Your task to perform on an android device: open a bookmark in the chrome app Image 0: 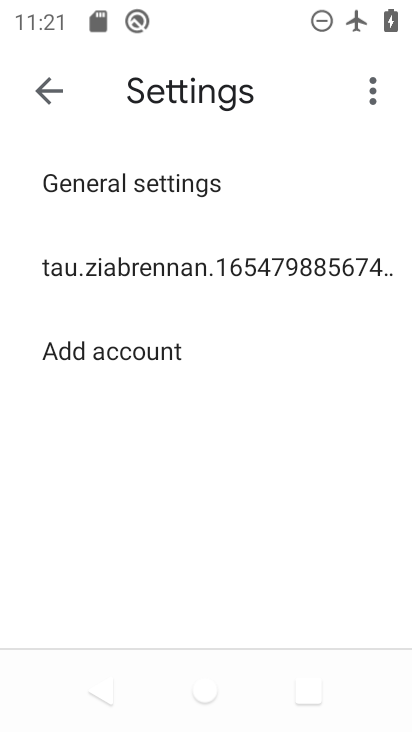
Step 0: press home button
Your task to perform on an android device: open a bookmark in the chrome app Image 1: 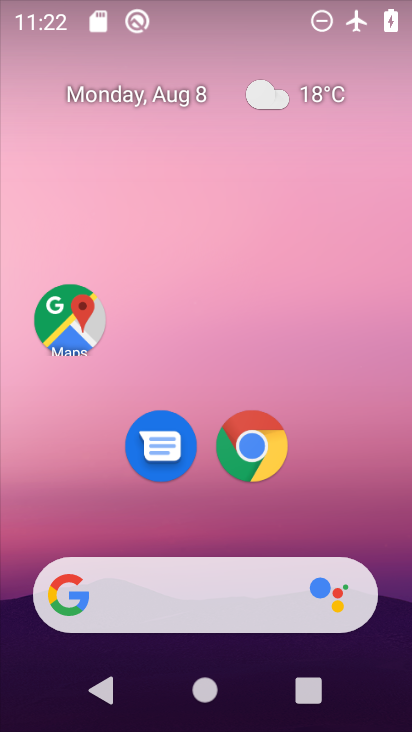
Step 1: click (253, 449)
Your task to perform on an android device: open a bookmark in the chrome app Image 2: 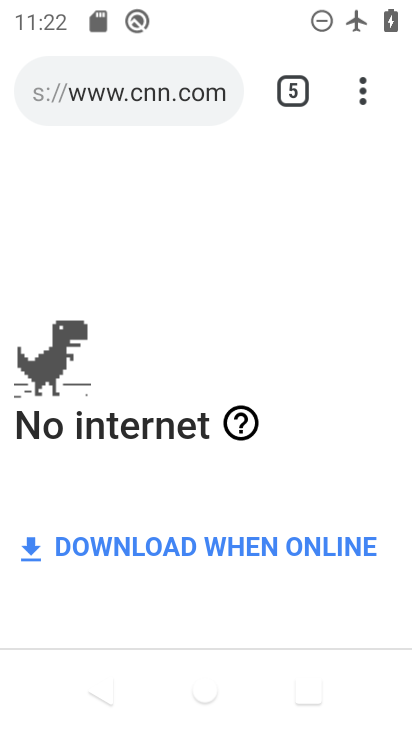
Step 2: click (356, 100)
Your task to perform on an android device: open a bookmark in the chrome app Image 3: 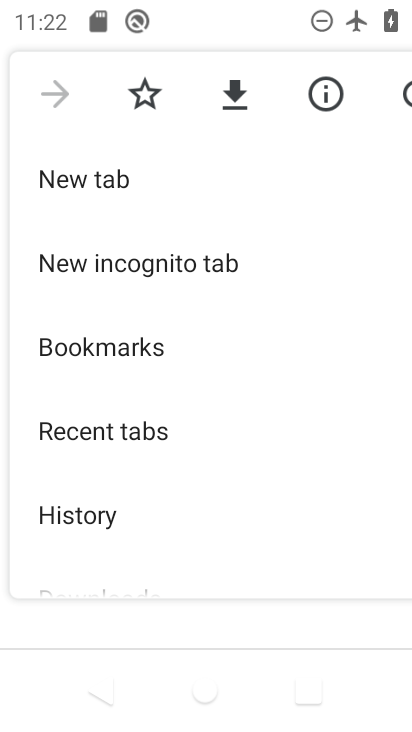
Step 3: click (104, 359)
Your task to perform on an android device: open a bookmark in the chrome app Image 4: 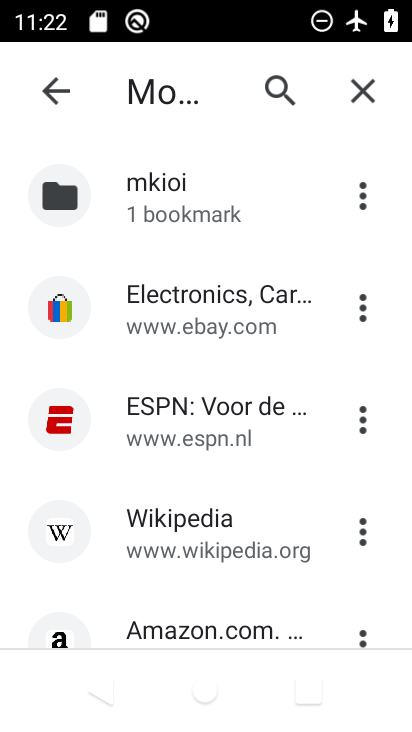
Step 4: click (204, 542)
Your task to perform on an android device: open a bookmark in the chrome app Image 5: 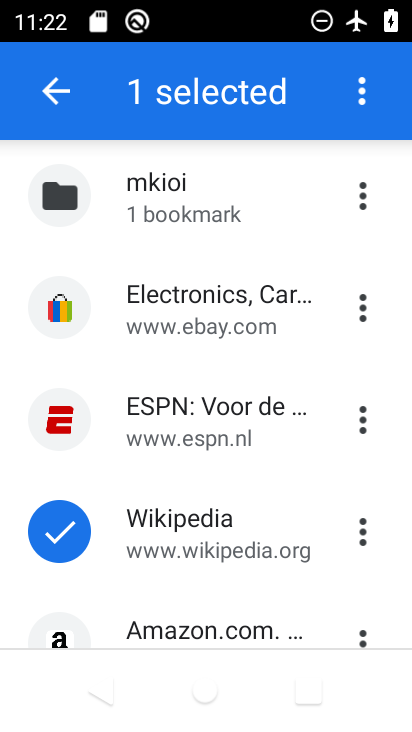
Step 5: click (356, 103)
Your task to perform on an android device: open a bookmark in the chrome app Image 6: 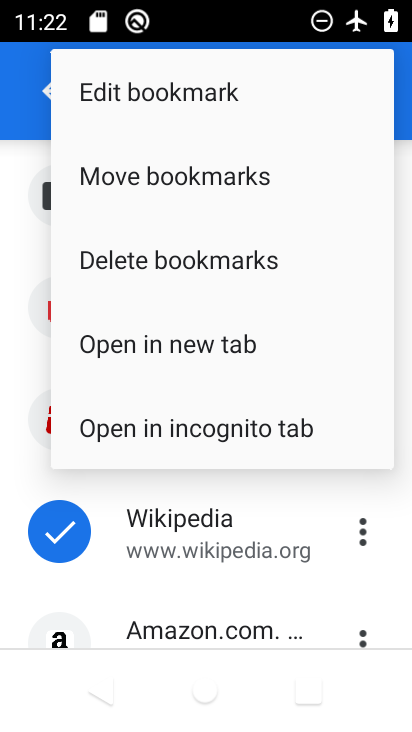
Step 6: click (145, 178)
Your task to perform on an android device: open a bookmark in the chrome app Image 7: 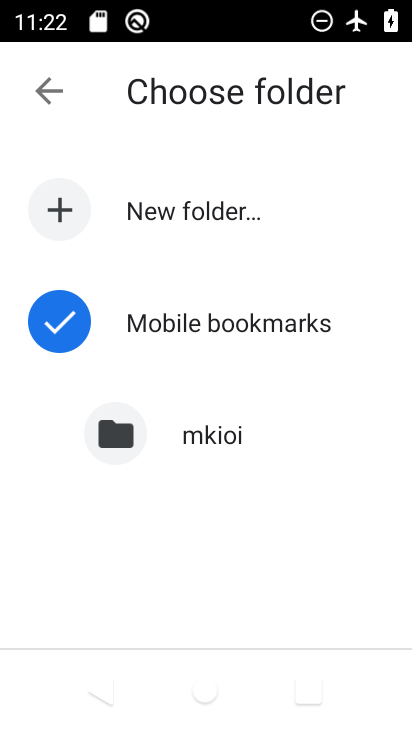
Step 7: click (201, 438)
Your task to perform on an android device: open a bookmark in the chrome app Image 8: 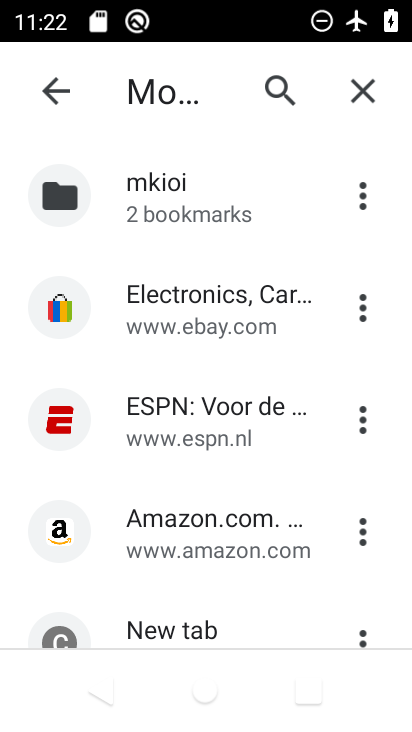
Step 8: task complete